Your task to perform on an android device: turn off wifi Image 0: 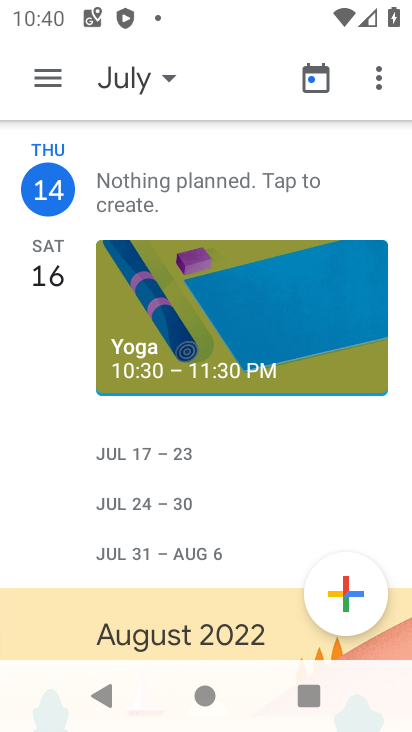
Step 0: drag from (208, 579) to (250, 172)
Your task to perform on an android device: turn off wifi Image 1: 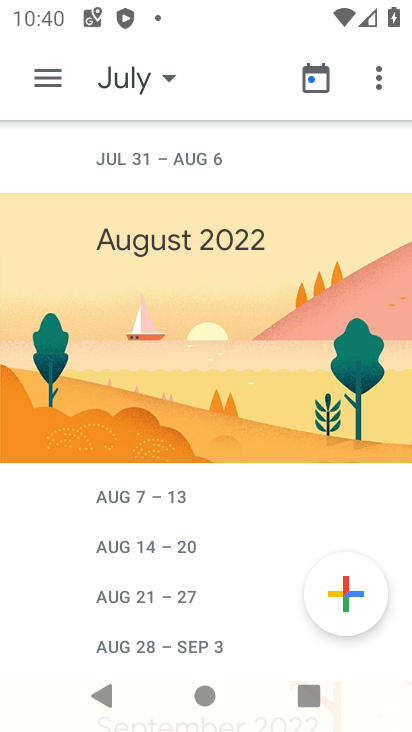
Step 1: press back button
Your task to perform on an android device: turn off wifi Image 2: 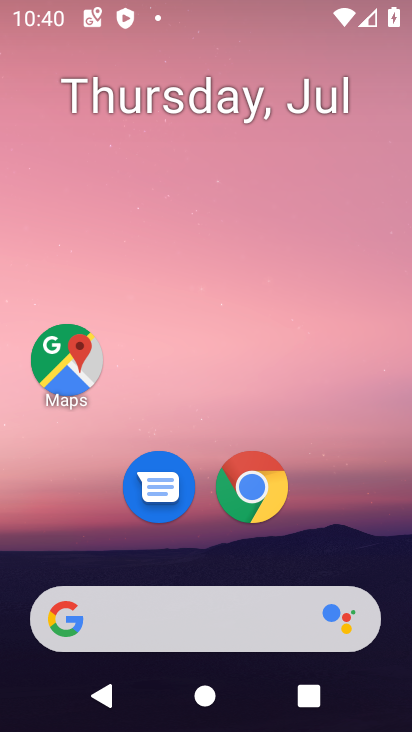
Step 2: drag from (114, 7) to (132, 663)
Your task to perform on an android device: turn off wifi Image 3: 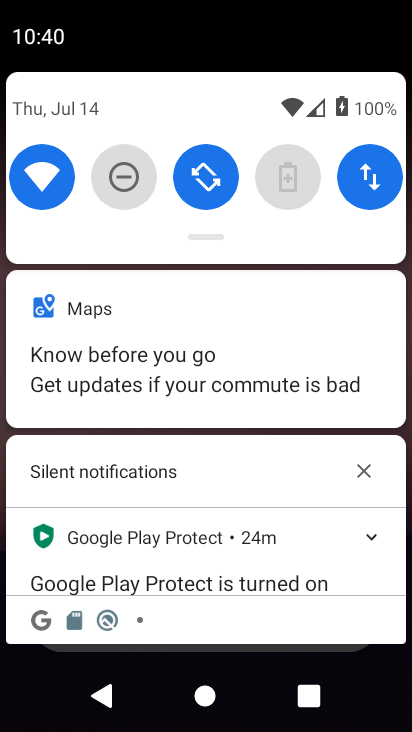
Step 3: click (44, 173)
Your task to perform on an android device: turn off wifi Image 4: 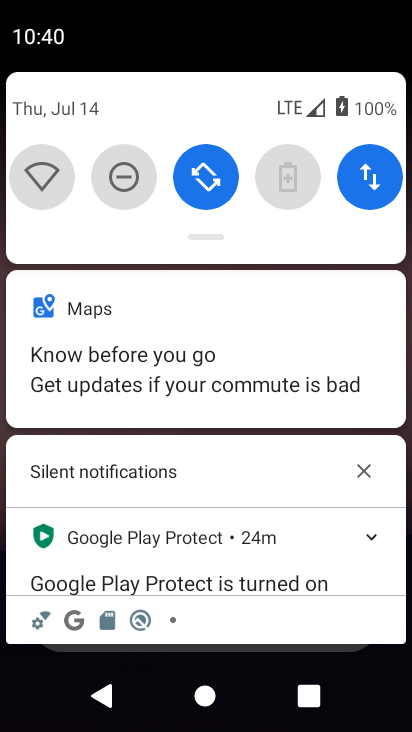
Step 4: task complete